Your task to perform on an android device: Open CNN.com Image 0: 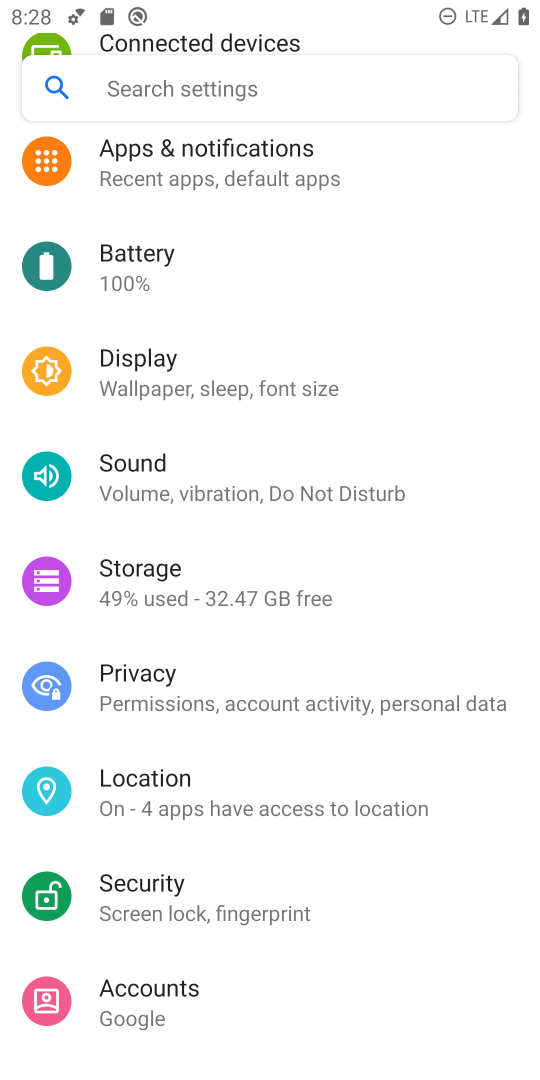
Step 0: press home button
Your task to perform on an android device: Open CNN.com Image 1: 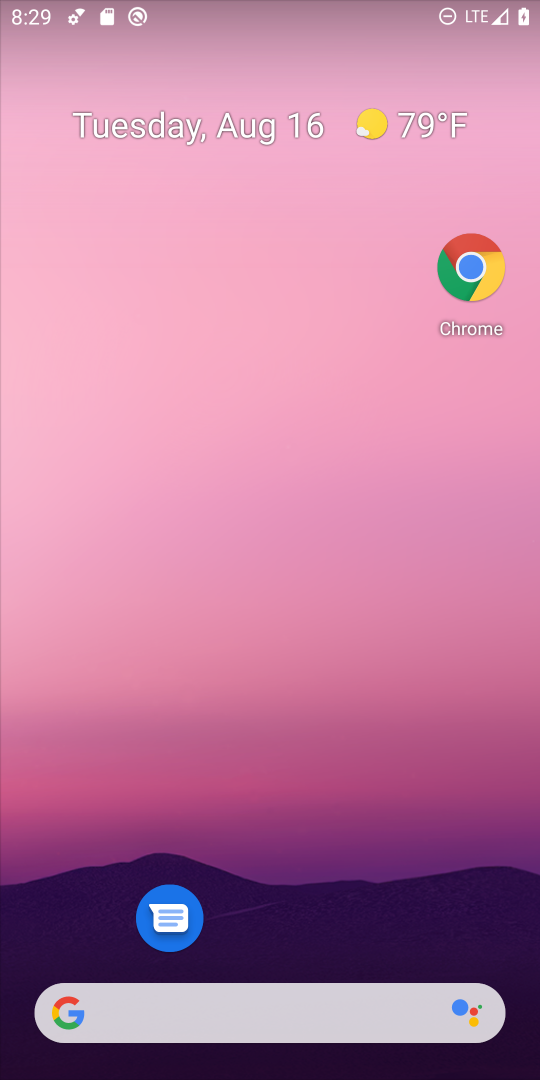
Step 1: click (507, 325)
Your task to perform on an android device: Open CNN.com Image 2: 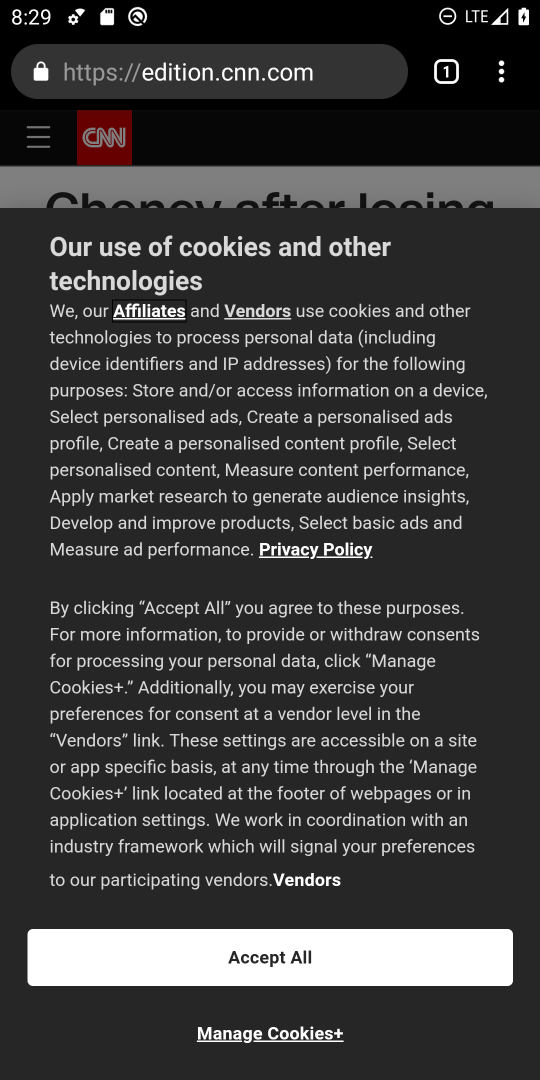
Step 2: task complete